Your task to perform on an android device: Go to display settings Image 0: 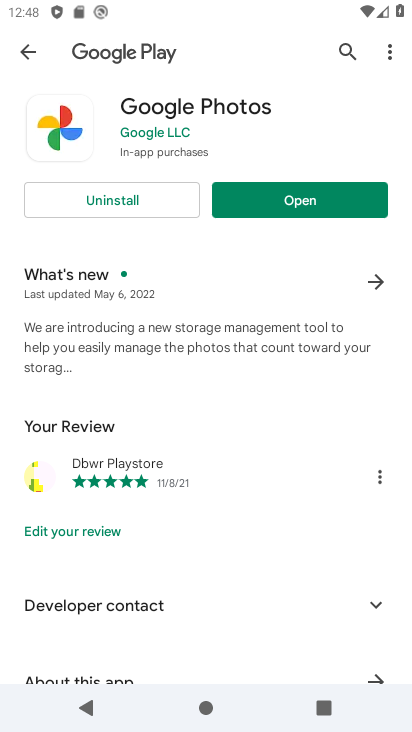
Step 0: press home button
Your task to perform on an android device: Go to display settings Image 1: 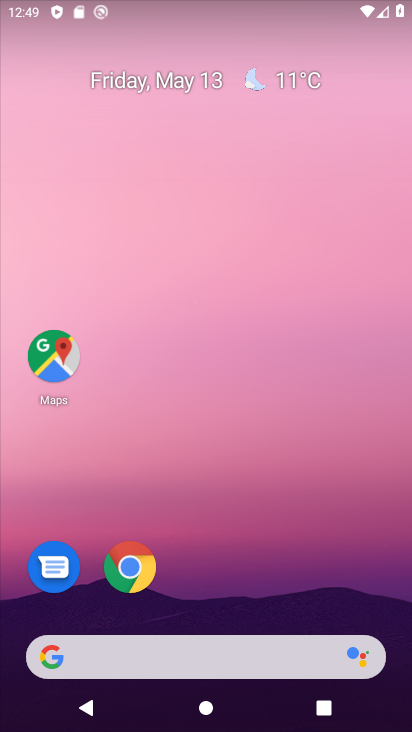
Step 1: drag from (274, 551) to (152, 82)
Your task to perform on an android device: Go to display settings Image 2: 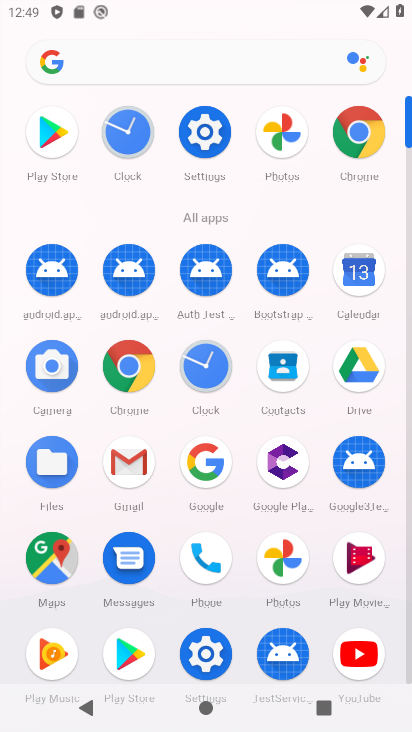
Step 2: click (199, 131)
Your task to perform on an android device: Go to display settings Image 3: 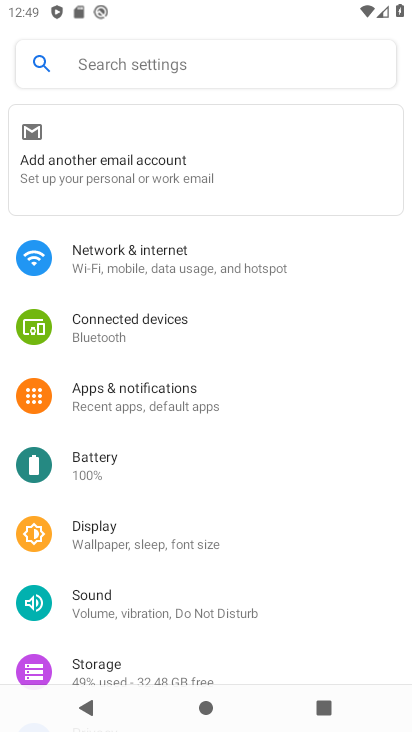
Step 3: click (120, 541)
Your task to perform on an android device: Go to display settings Image 4: 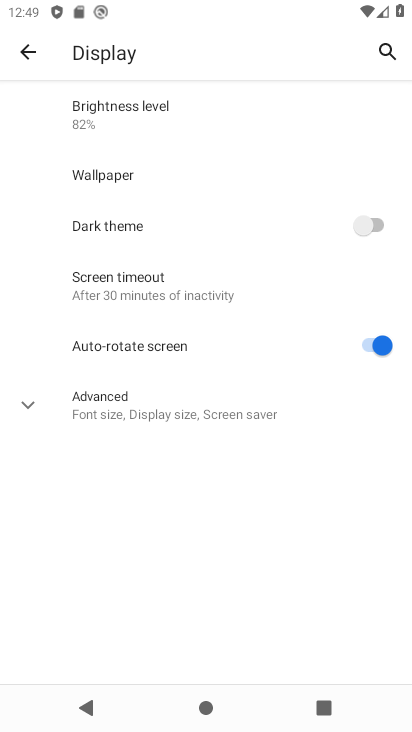
Step 4: task complete